Your task to perform on an android device: Do I have any events this weekend? Image 0: 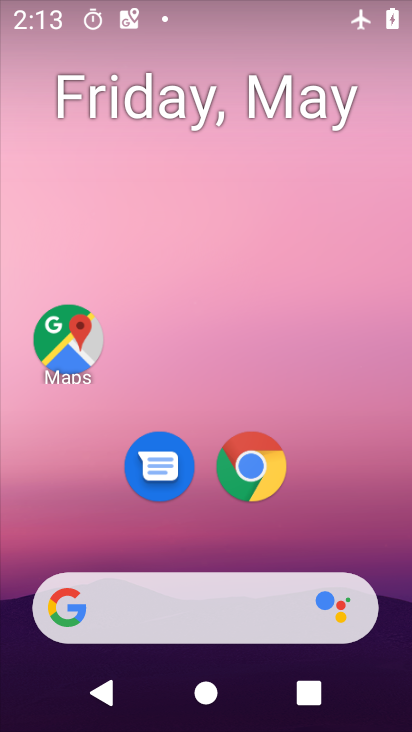
Step 0: drag from (350, 536) to (392, 0)
Your task to perform on an android device: Do I have any events this weekend? Image 1: 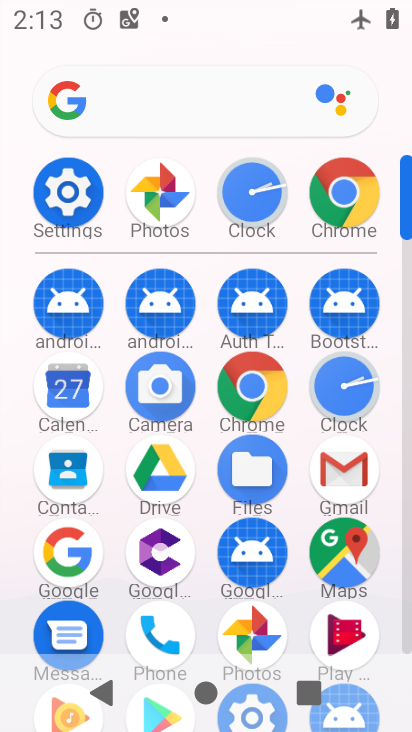
Step 1: click (71, 423)
Your task to perform on an android device: Do I have any events this weekend? Image 2: 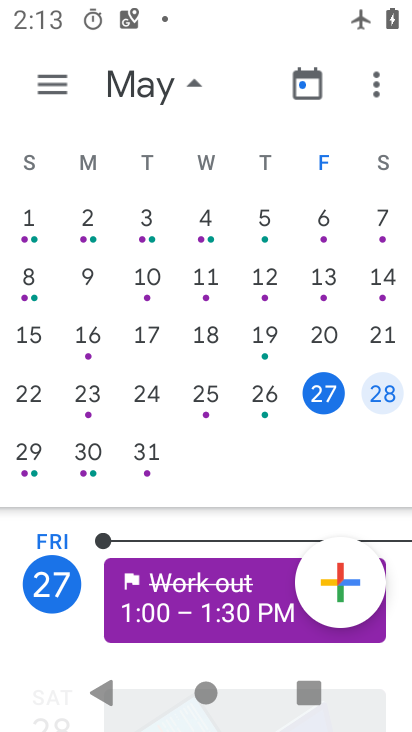
Step 2: click (87, 463)
Your task to perform on an android device: Do I have any events this weekend? Image 3: 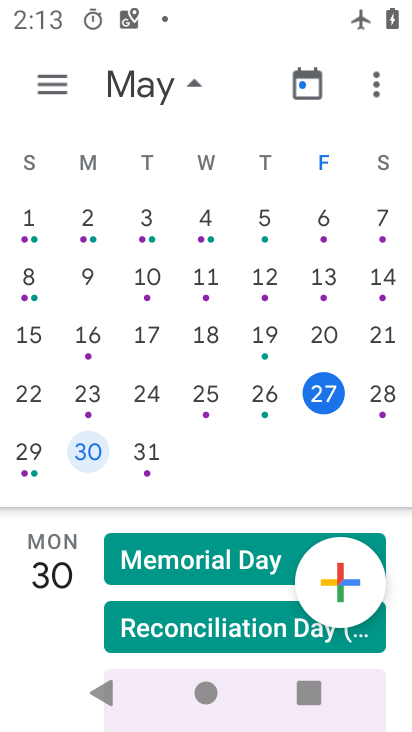
Step 3: task complete